Your task to perform on an android device: Open Google Chrome Image 0: 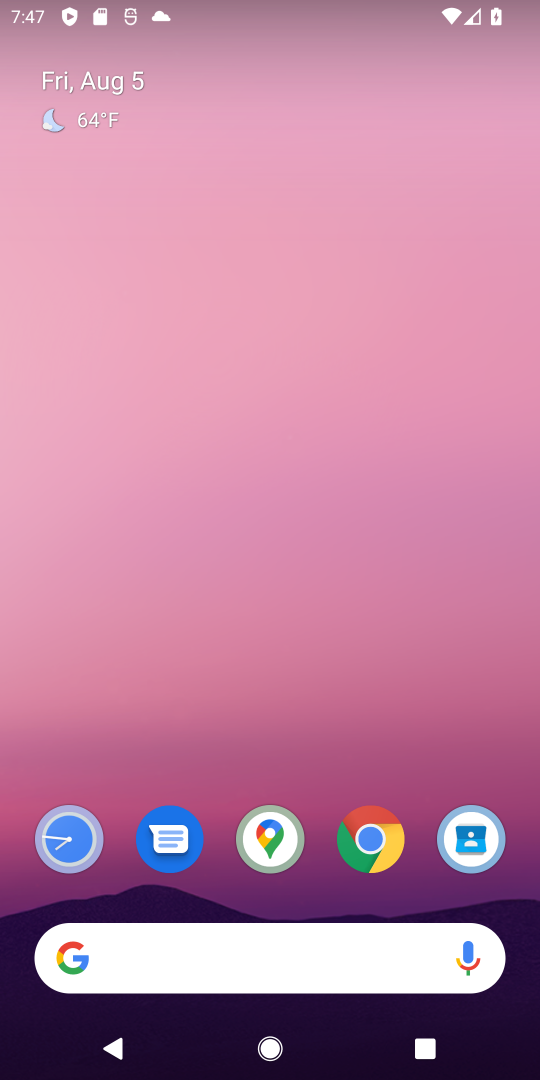
Step 0: click (364, 837)
Your task to perform on an android device: Open Google Chrome Image 1: 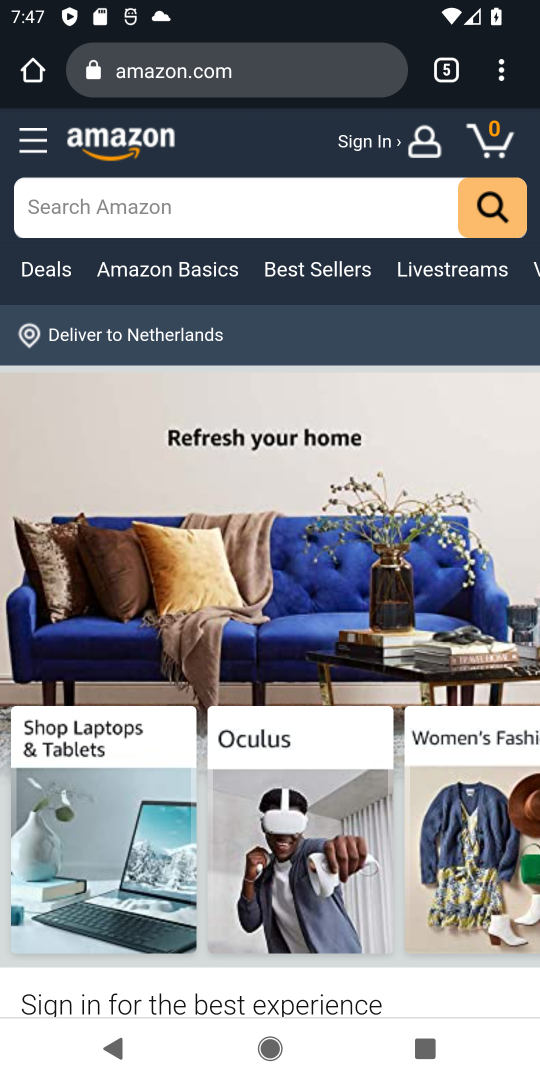
Step 1: task complete